Your task to perform on an android device: Open Yahoo.com Image 0: 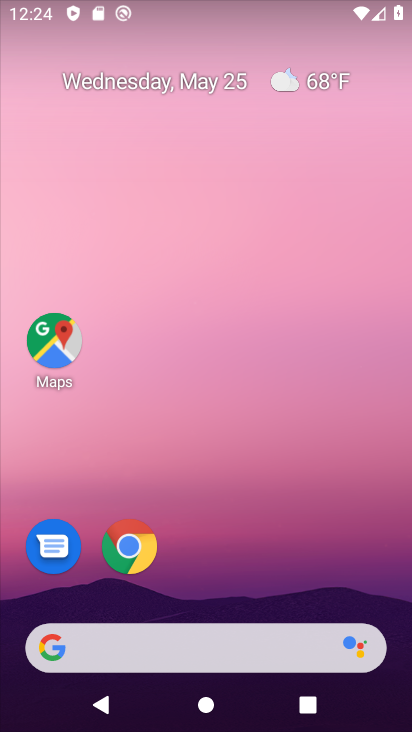
Step 0: drag from (261, 596) to (261, 165)
Your task to perform on an android device: Open Yahoo.com Image 1: 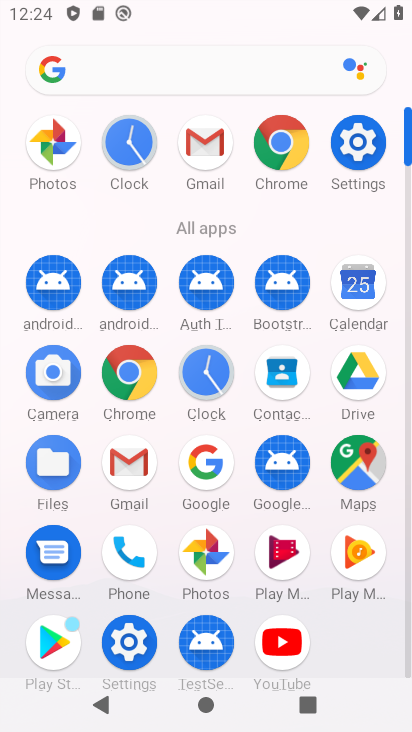
Step 1: click (265, 157)
Your task to perform on an android device: Open Yahoo.com Image 2: 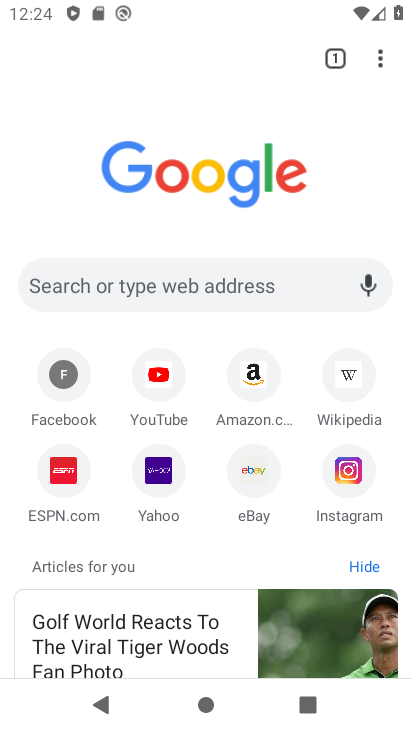
Step 2: click (168, 484)
Your task to perform on an android device: Open Yahoo.com Image 3: 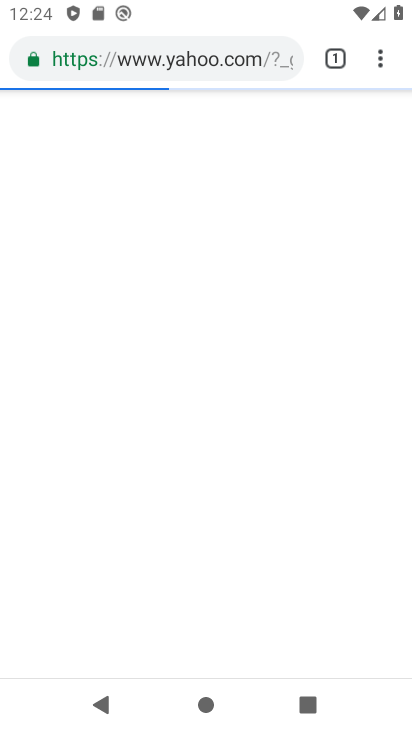
Step 3: task complete